Your task to perform on an android device: Search for runner rugs on Crate & Barrel Image 0: 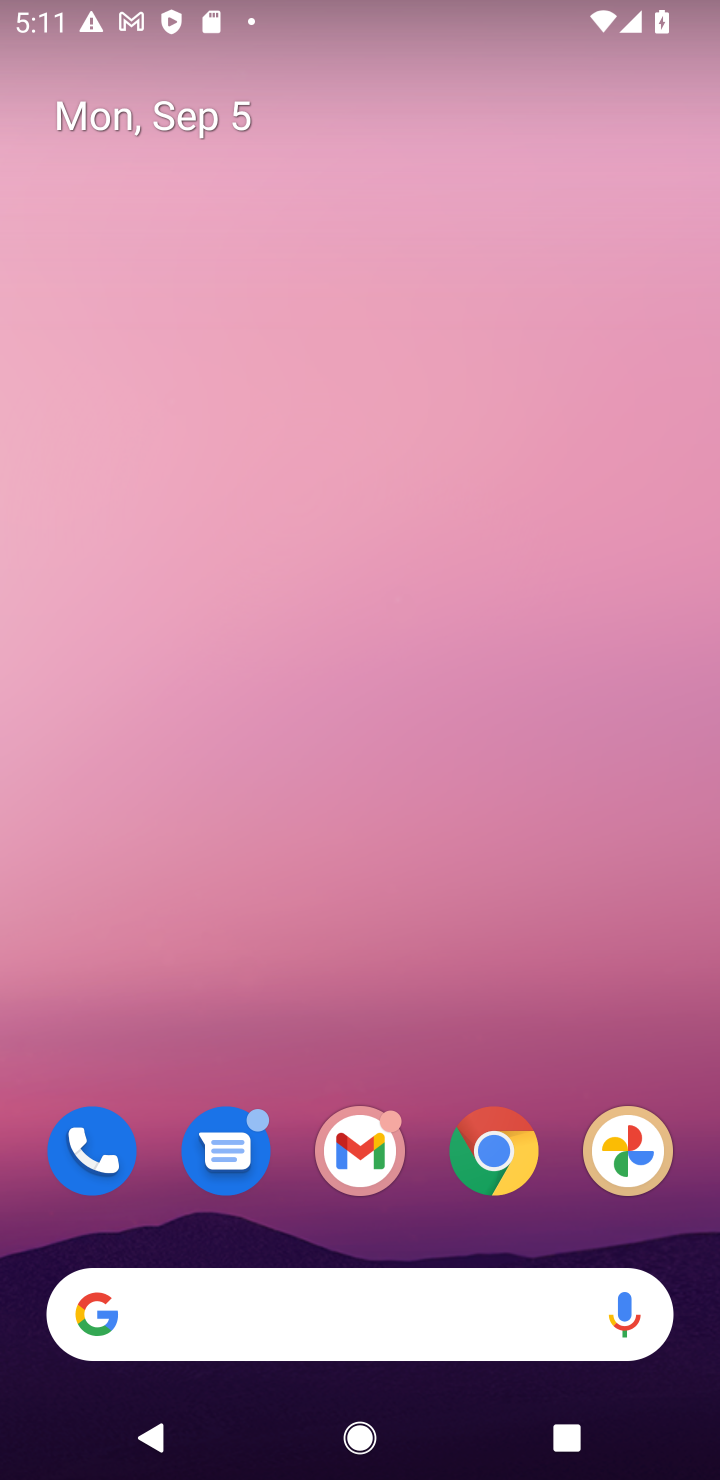
Step 0: click (500, 1161)
Your task to perform on an android device: Search for runner rugs on Crate & Barrel Image 1: 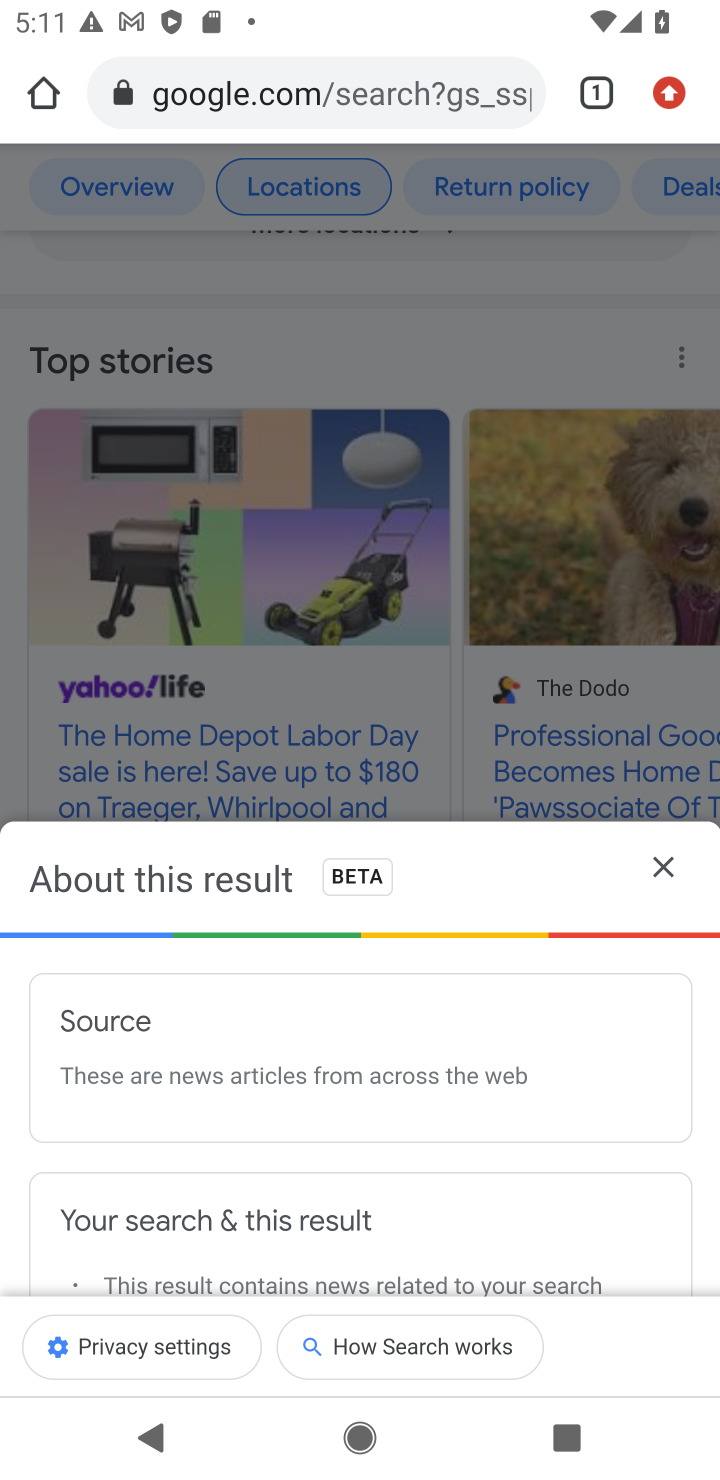
Step 1: click (437, 104)
Your task to perform on an android device: Search for runner rugs on Crate & Barrel Image 2: 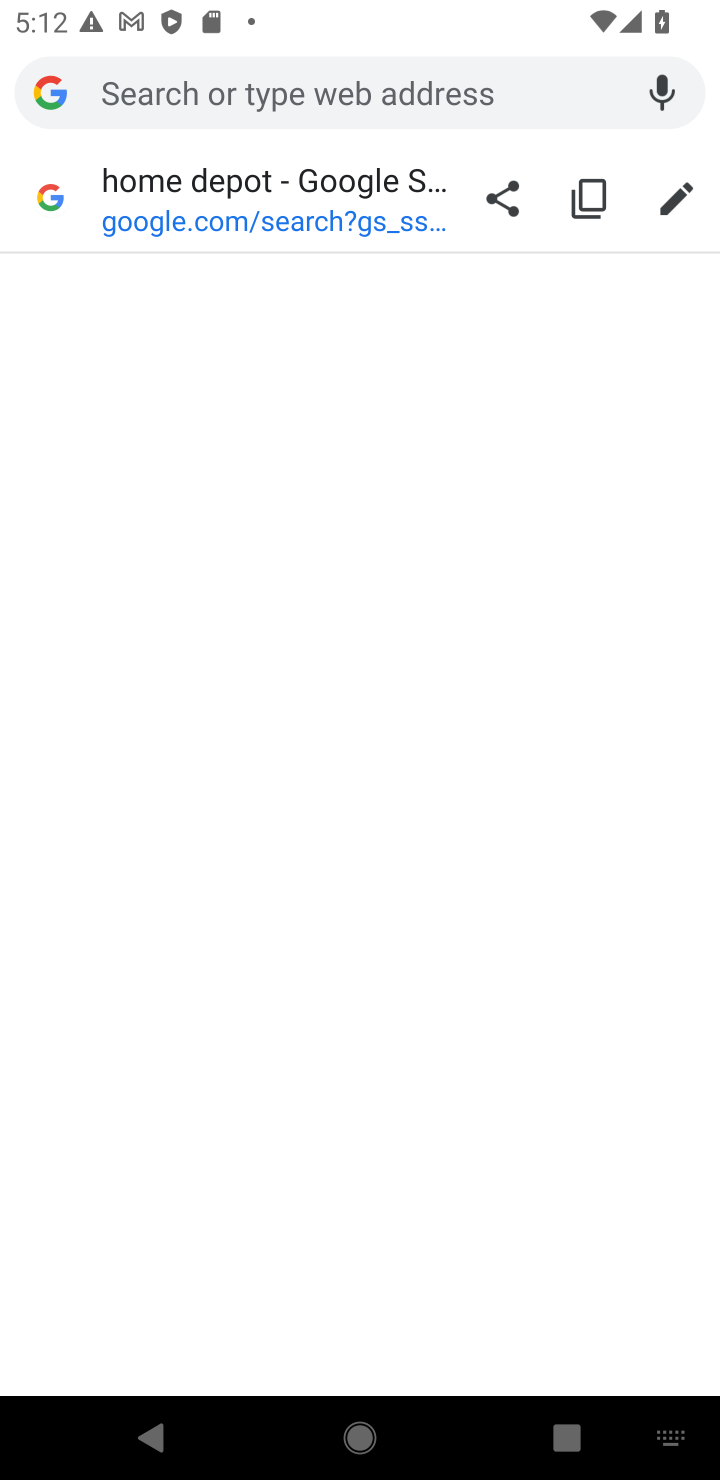
Step 2: type "crate and bareel"
Your task to perform on an android device: Search for runner rugs on Crate & Barrel Image 3: 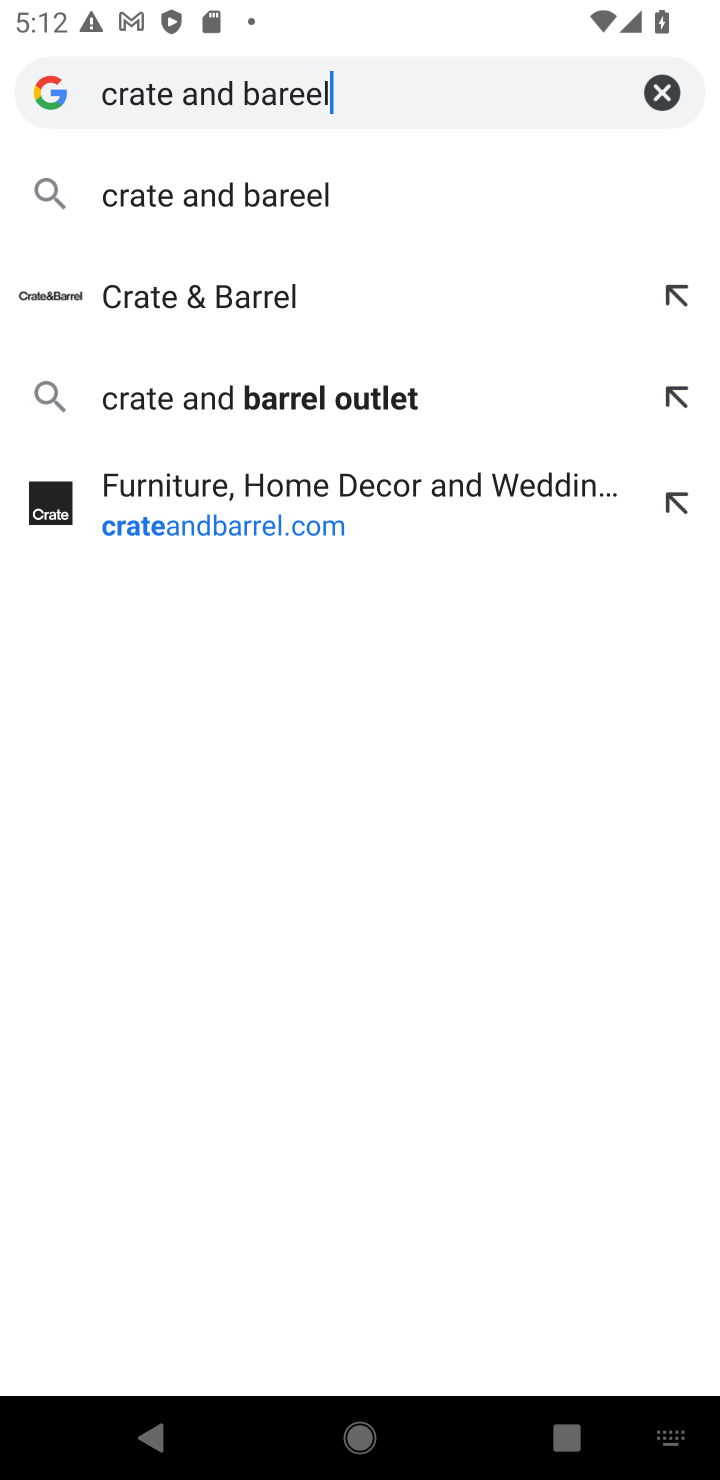
Step 3: click (402, 291)
Your task to perform on an android device: Search for runner rugs on Crate & Barrel Image 4: 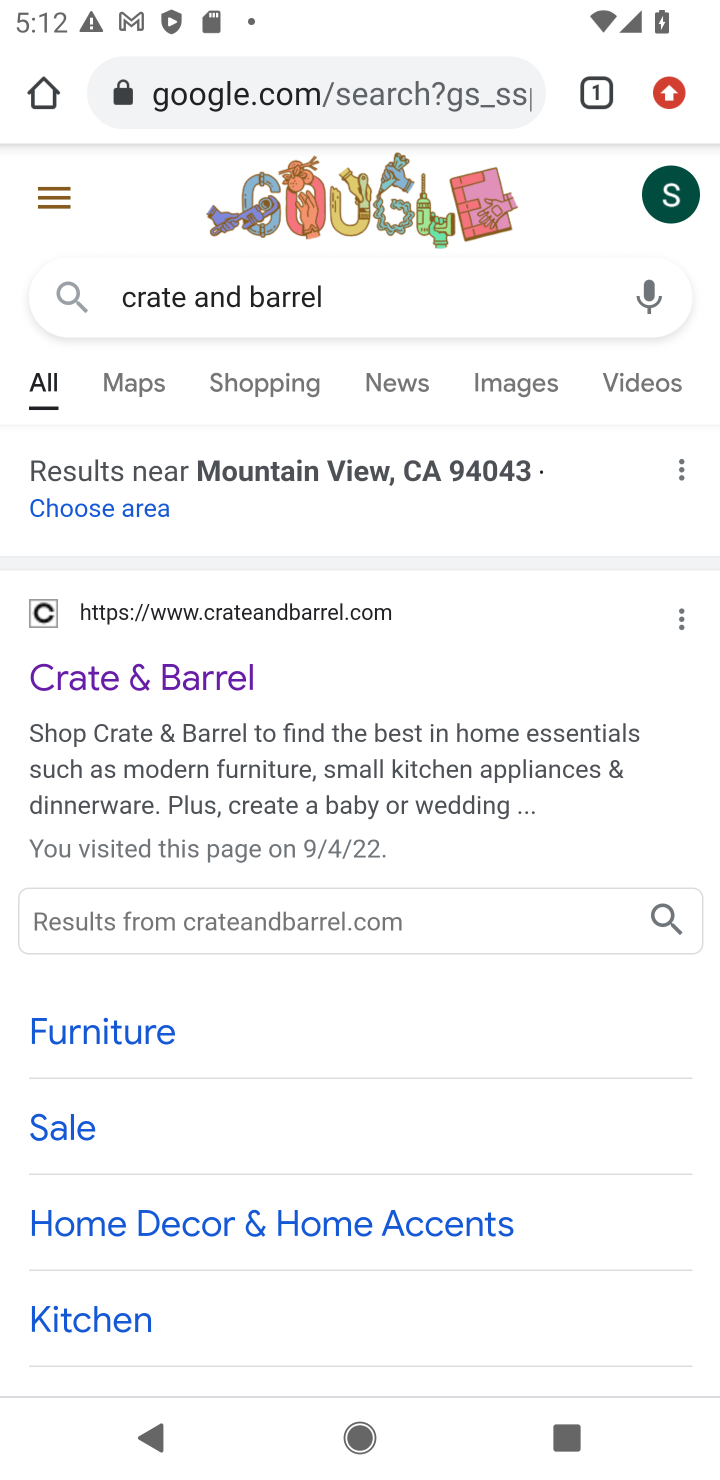
Step 4: click (215, 673)
Your task to perform on an android device: Search for runner rugs on Crate & Barrel Image 5: 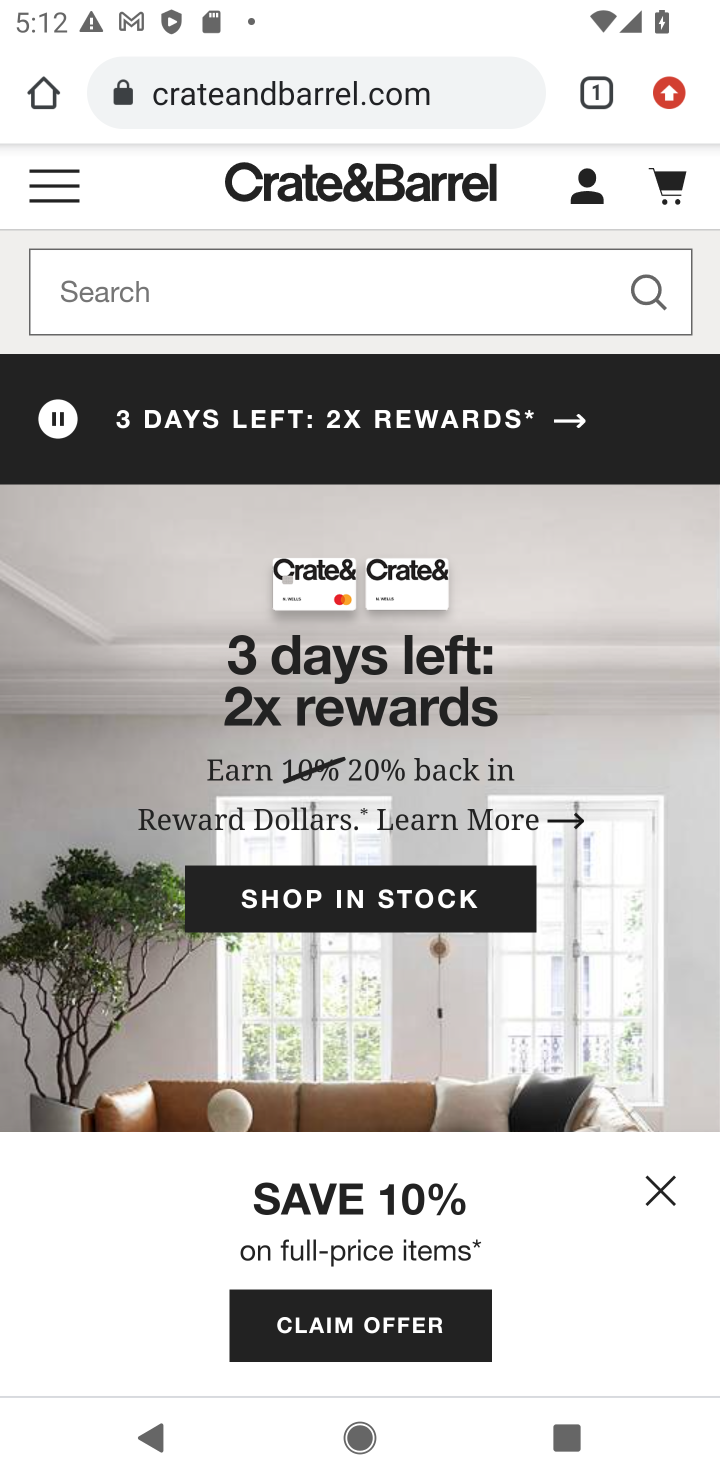
Step 5: click (465, 289)
Your task to perform on an android device: Search for runner rugs on Crate & Barrel Image 6: 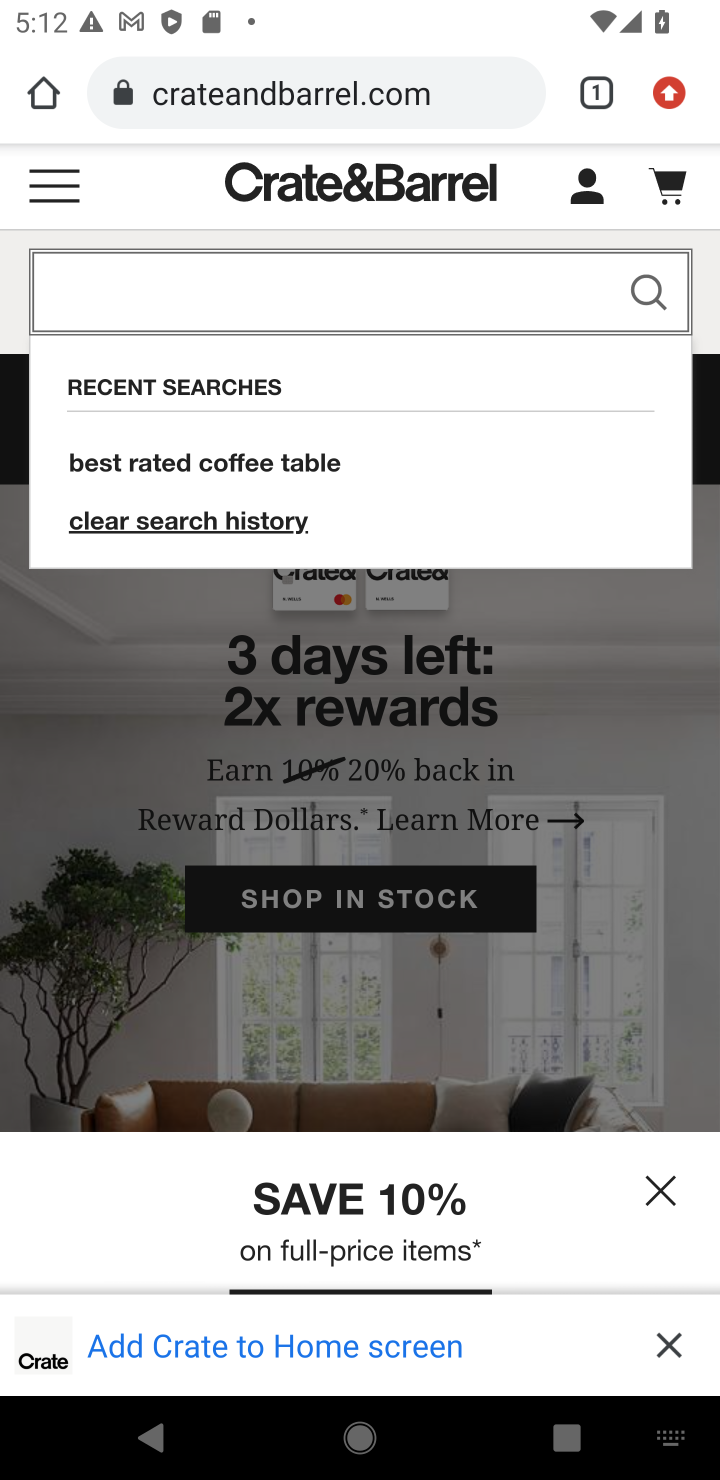
Step 6: type "runner rugs"
Your task to perform on an android device: Search for runner rugs on Crate & Barrel Image 7: 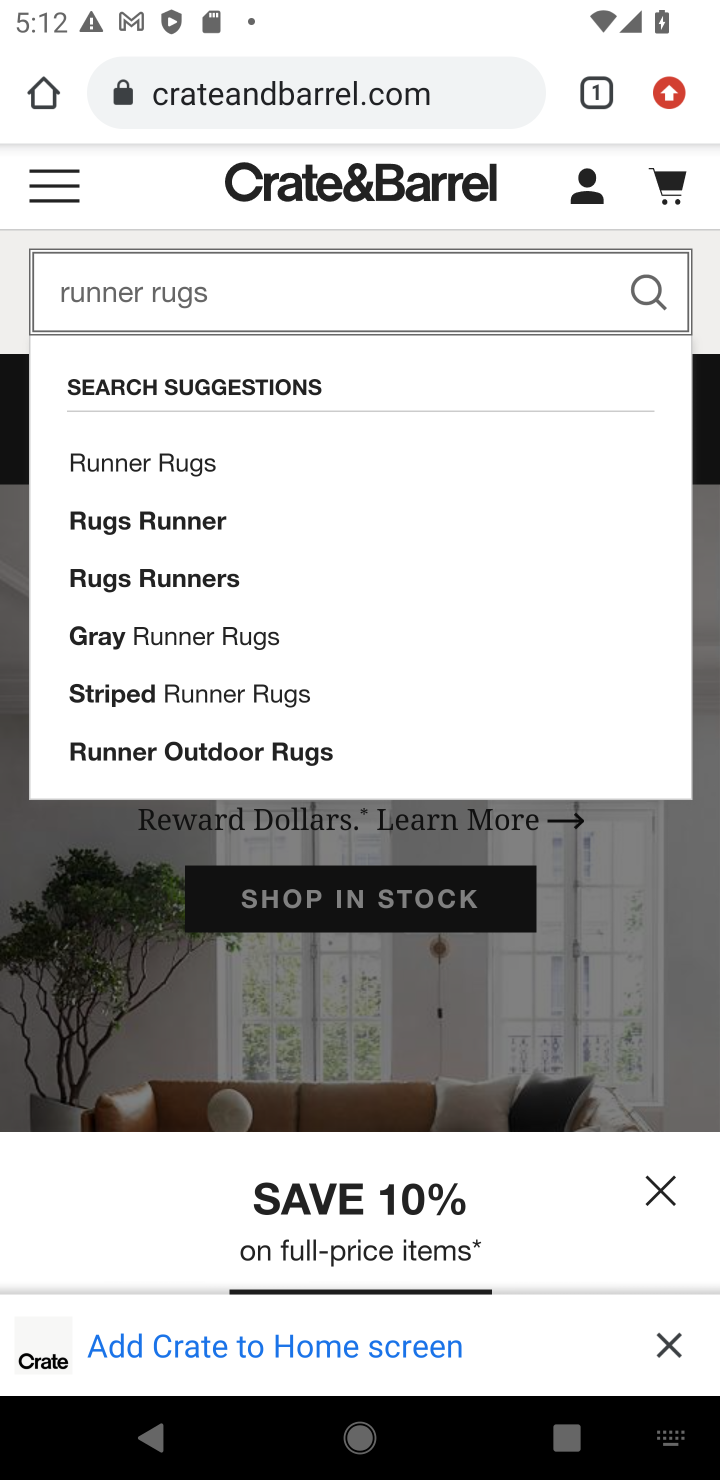
Step 7: click (175, 459)
Your task to perform on an android device: Search for runner rugs on Crate & Barrel Image 8: 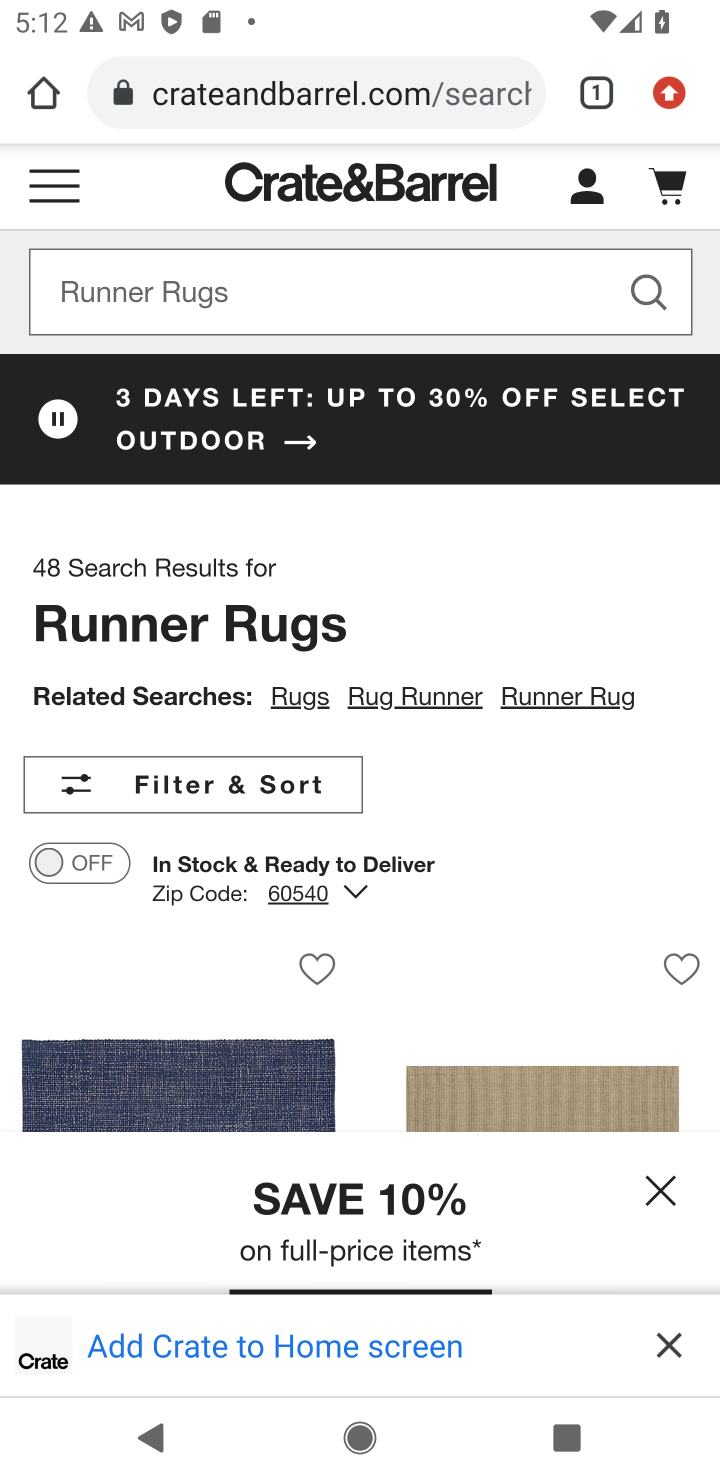
Step 8: task complete